Your task to perform on an android device: toggle location history Image 0: 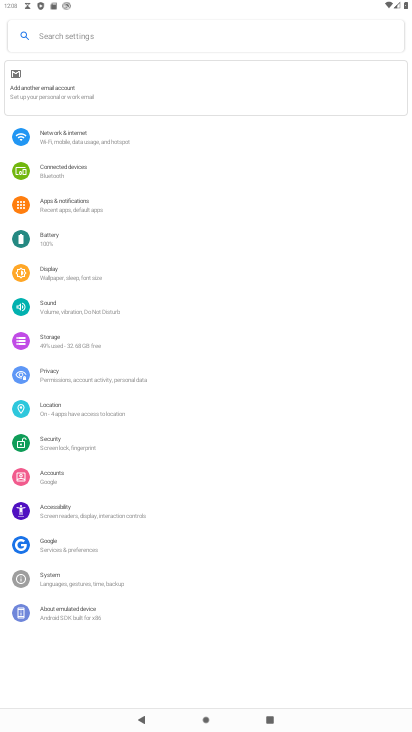
Step 0: press home button
Your task to perform on an android device: toggle location history Image 1: 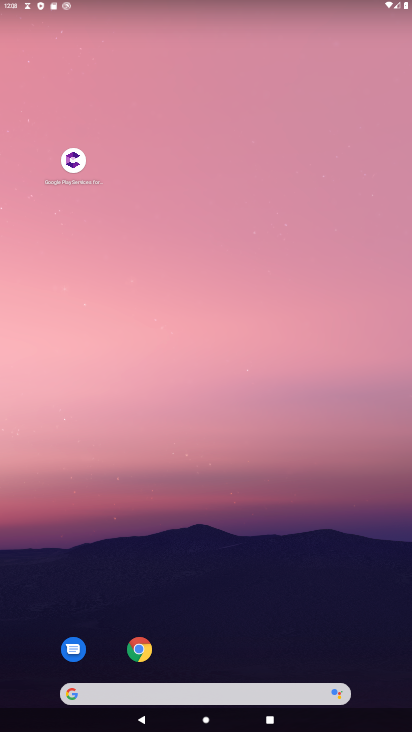
Step 1: drag from (179, 677) to (154, 195)
Your task to perform on an android device: toggle location history Image 2: 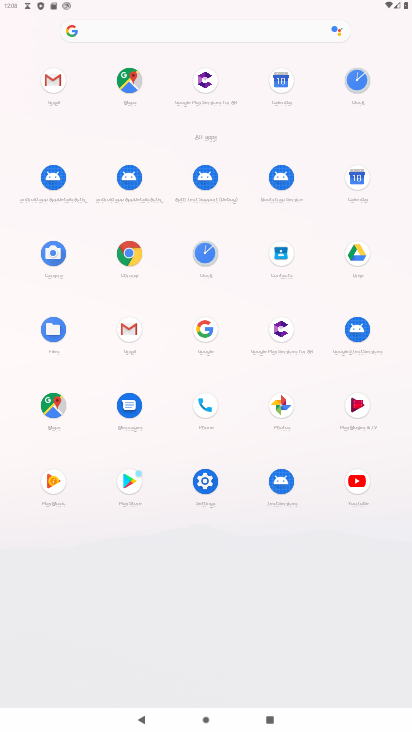
Step 2: click (198, 487)
Your task to perform on an android device: toggle location history Image 3: 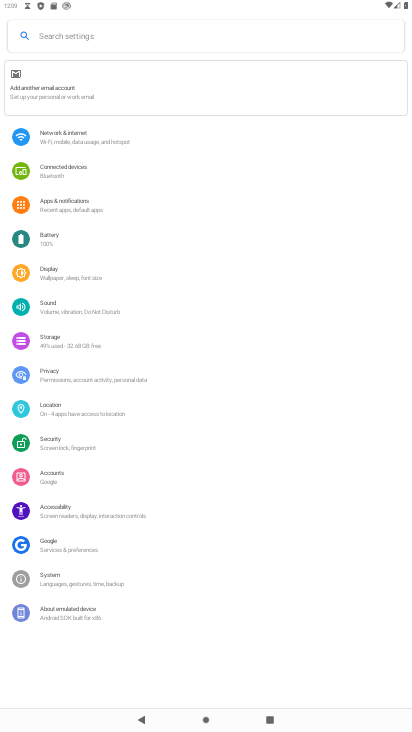
Step 3: press home button
Your task to perform on an android device: toggle location history Image 4: 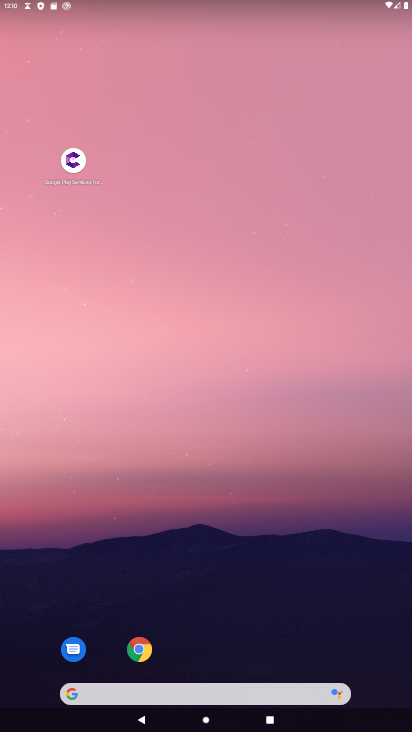
Step 4: drag from (278, 681) to (305, 47)
Your task to perform on an android device: toggle location history Image 5: 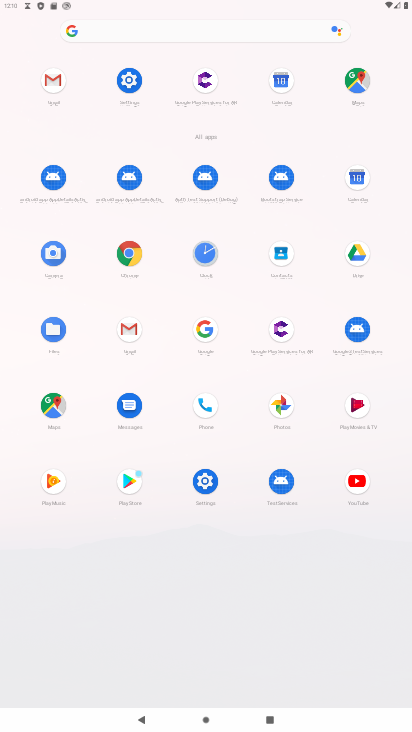
Step 5: click (129, 76)
Your task to perform on an android device: toggle location history Image 6: 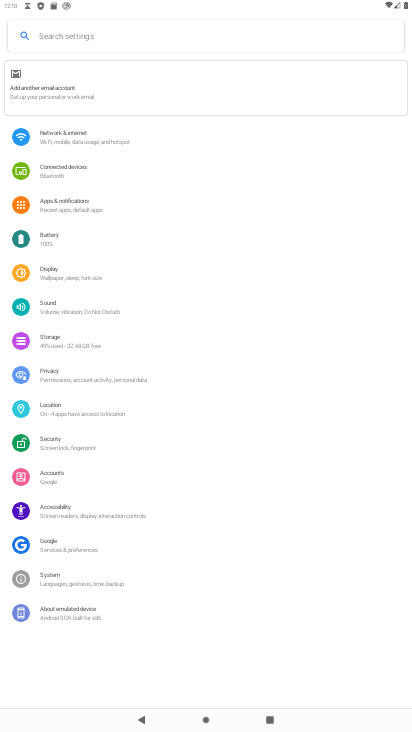
Step 6: click (70, 411)
Your task to perform on an android device: toggle location history Image 7: 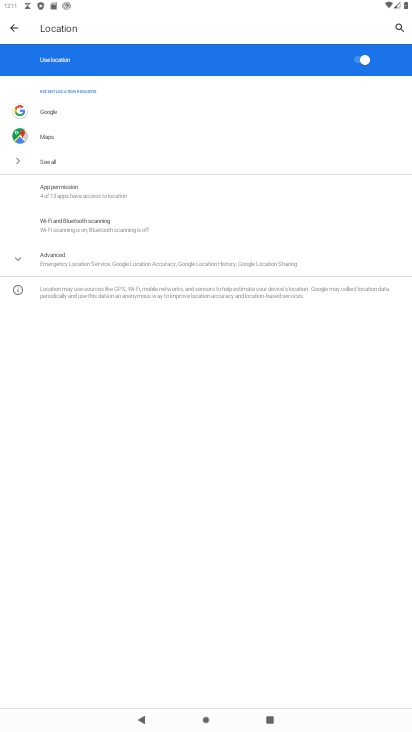
Step 7: click (74, 252)
Your task to perform on an android device: toggle location history Image 8: 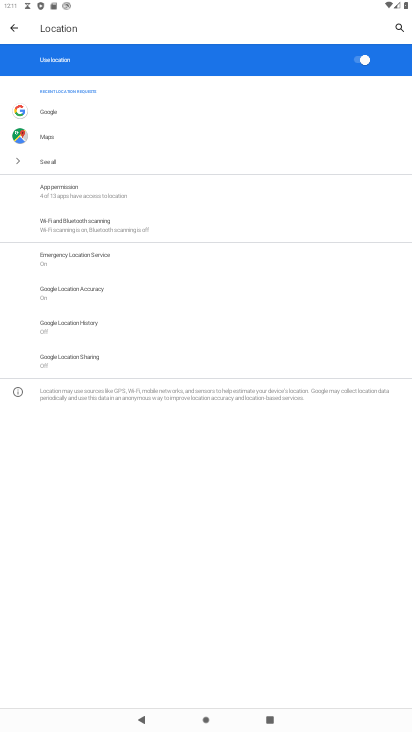
Step 8: click (91, 319)
Your task to perform on an android device: toggle location history Image 9: 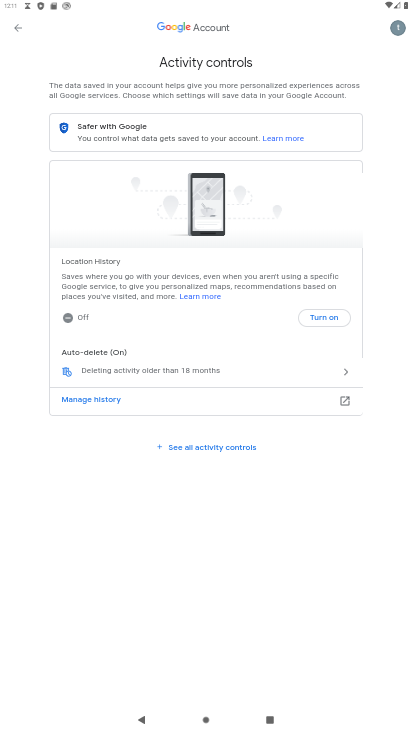
Step 9: click (340, 314)
Your task to perform on an android device: toggle location history Image 10: 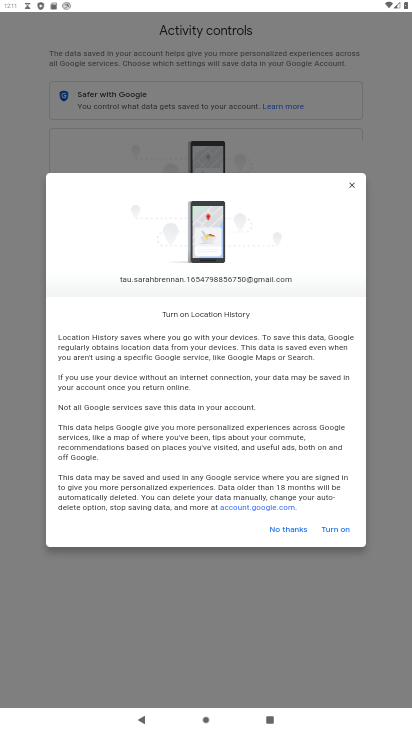
Step 10: click (331, 527)
Your task to perform on an android device: toggle location history Image 11: 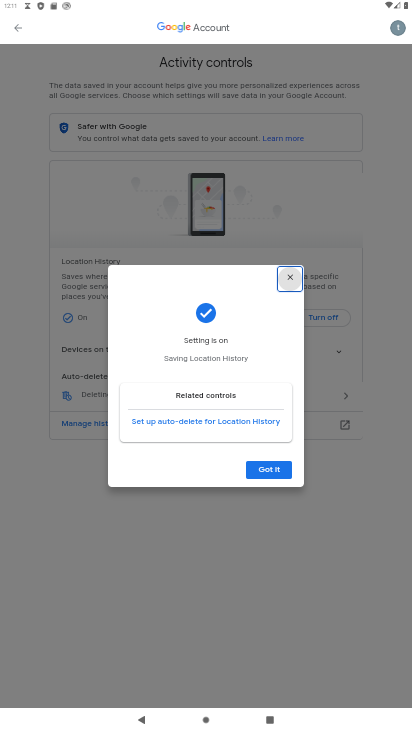
Step 11: click (275, 461)
Your task to perform on an android device: toggle location history Image 12: 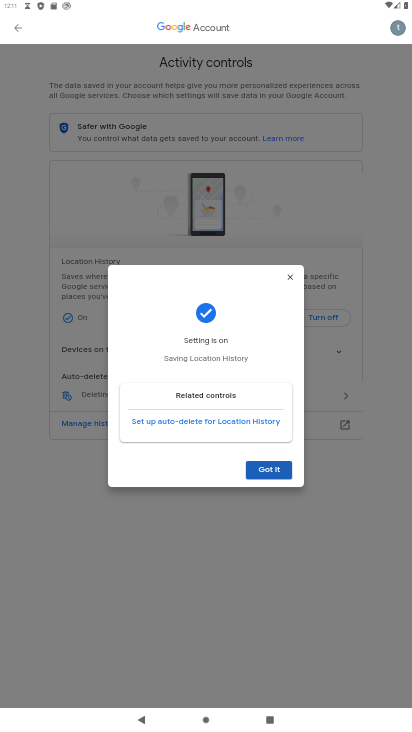
Step 12: click (269, 467)
Your task to perform on an android device: toggle location history Image 13: 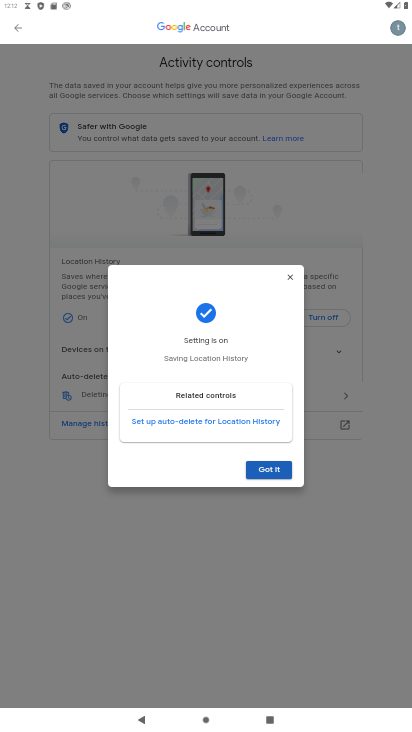
Step 13: click (270, 468)
Your task to perform on an android device: toggle location history Image 14: 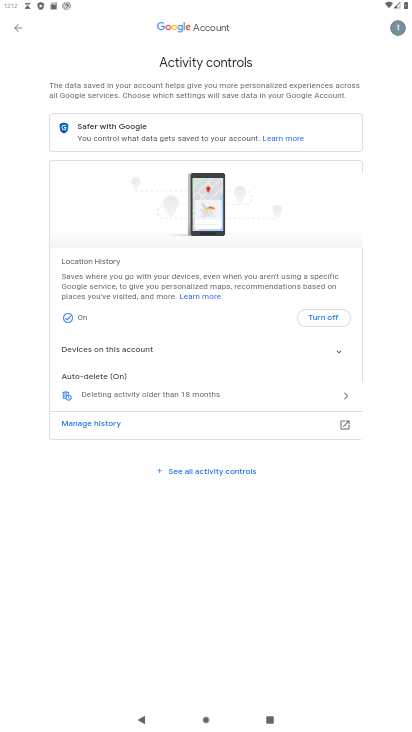
Step 14: task complete